Your task to perform on an android device: Add bose soundlink mini to the cart on amazon.com, then select checkout. Image 0: 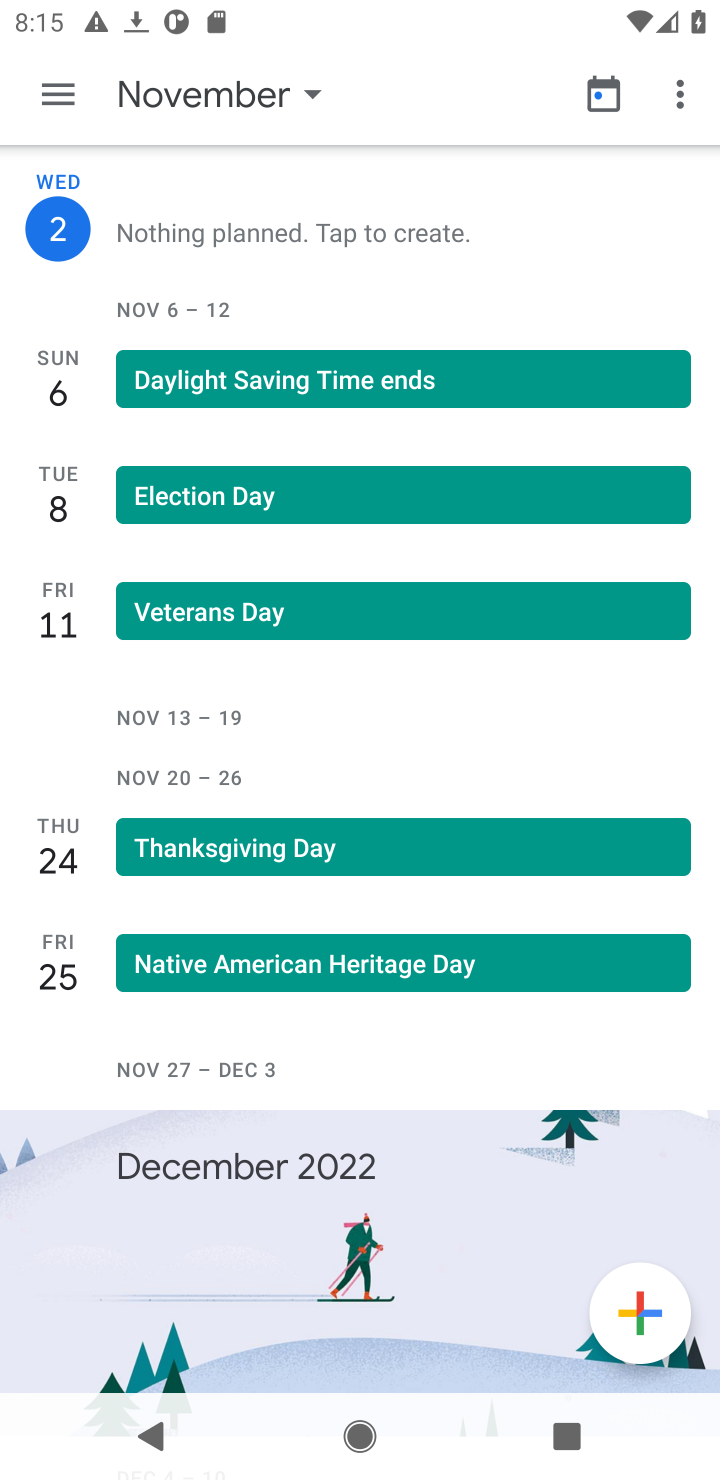
Step 0: press home button
Your task to perform on an android device: Add bose soundlink mini to the cart on amazon.com, then select checkout. Image 1: 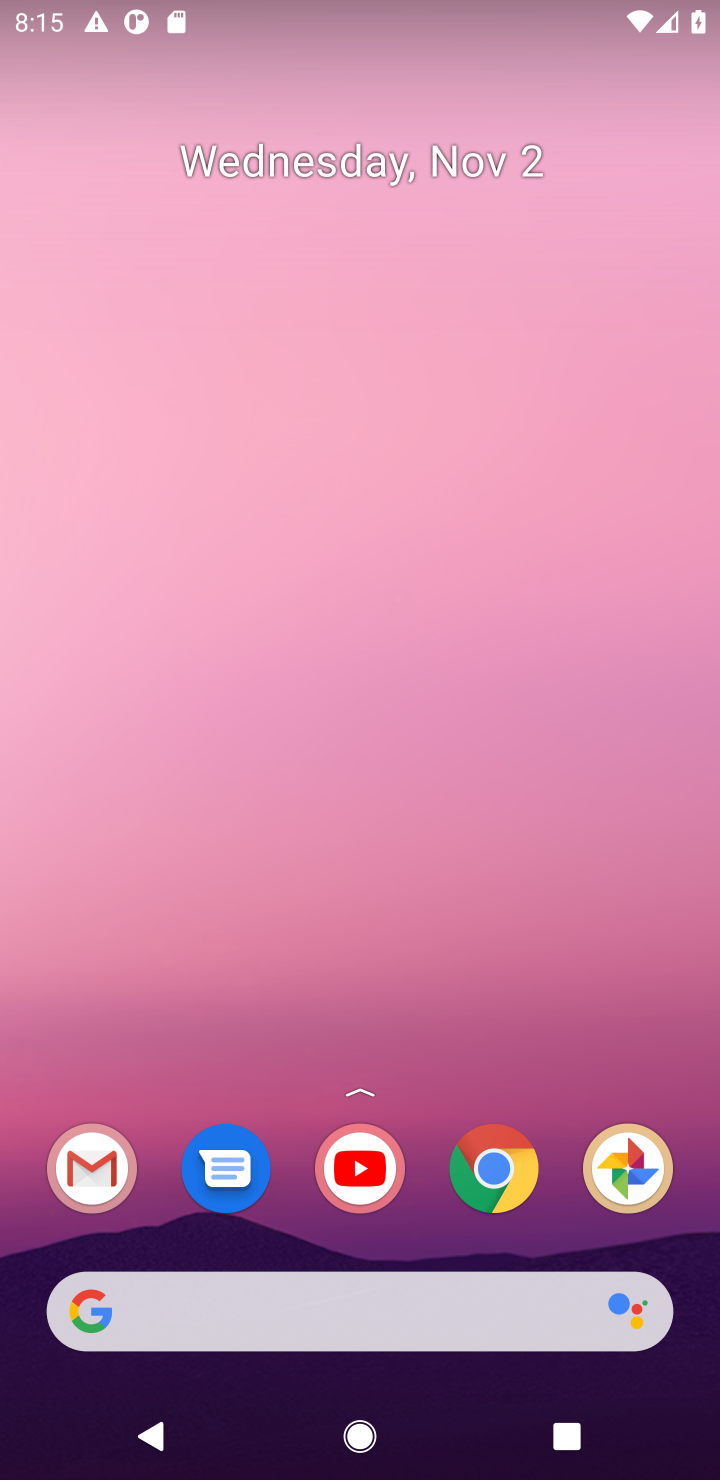
Step 1: click (495, 1175)
Your task to perform on an android device: Add bose soundlink mini to the cart on amazon.com, then select checkout. Image 2: 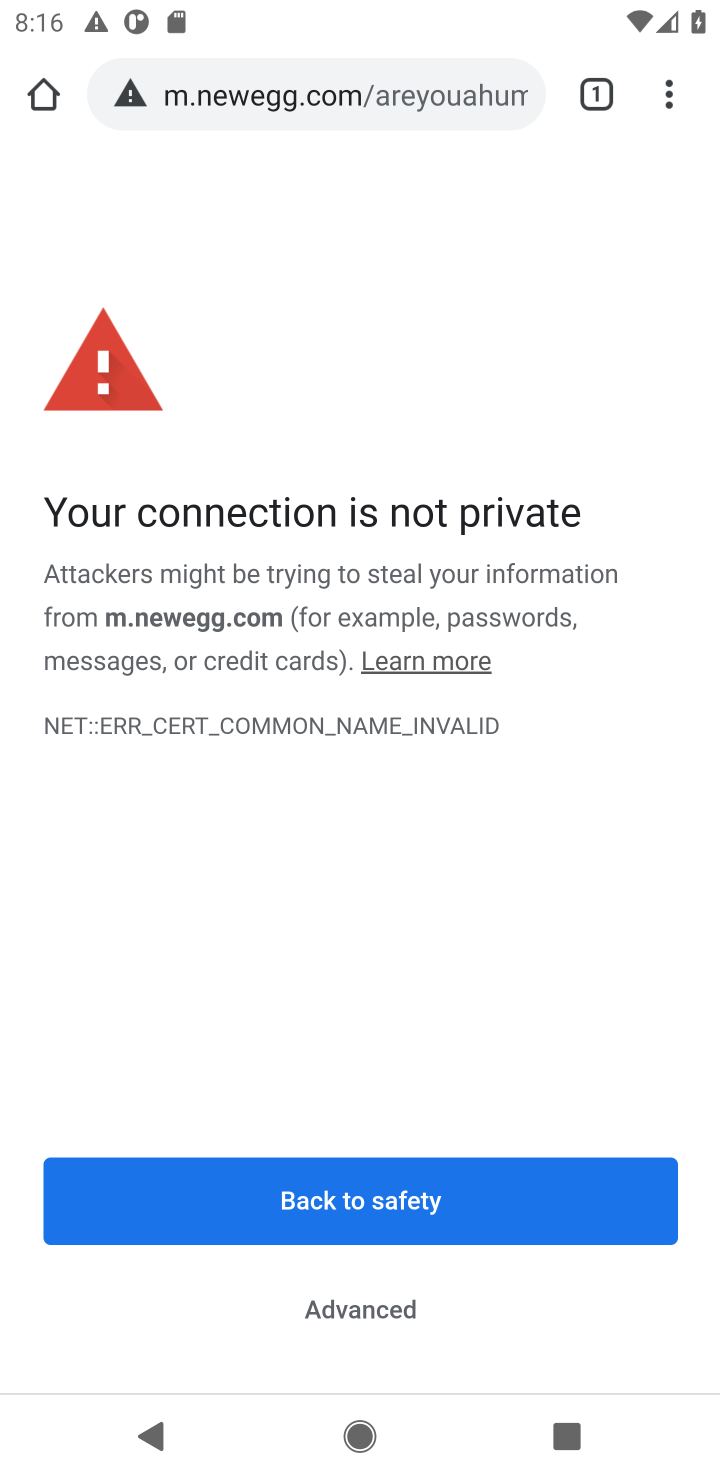
Step 2: click (401, 100)
Your task to perform on an android device: Add bose soundlink mini to the cart on amazon.com, then select checkout. Image 3: 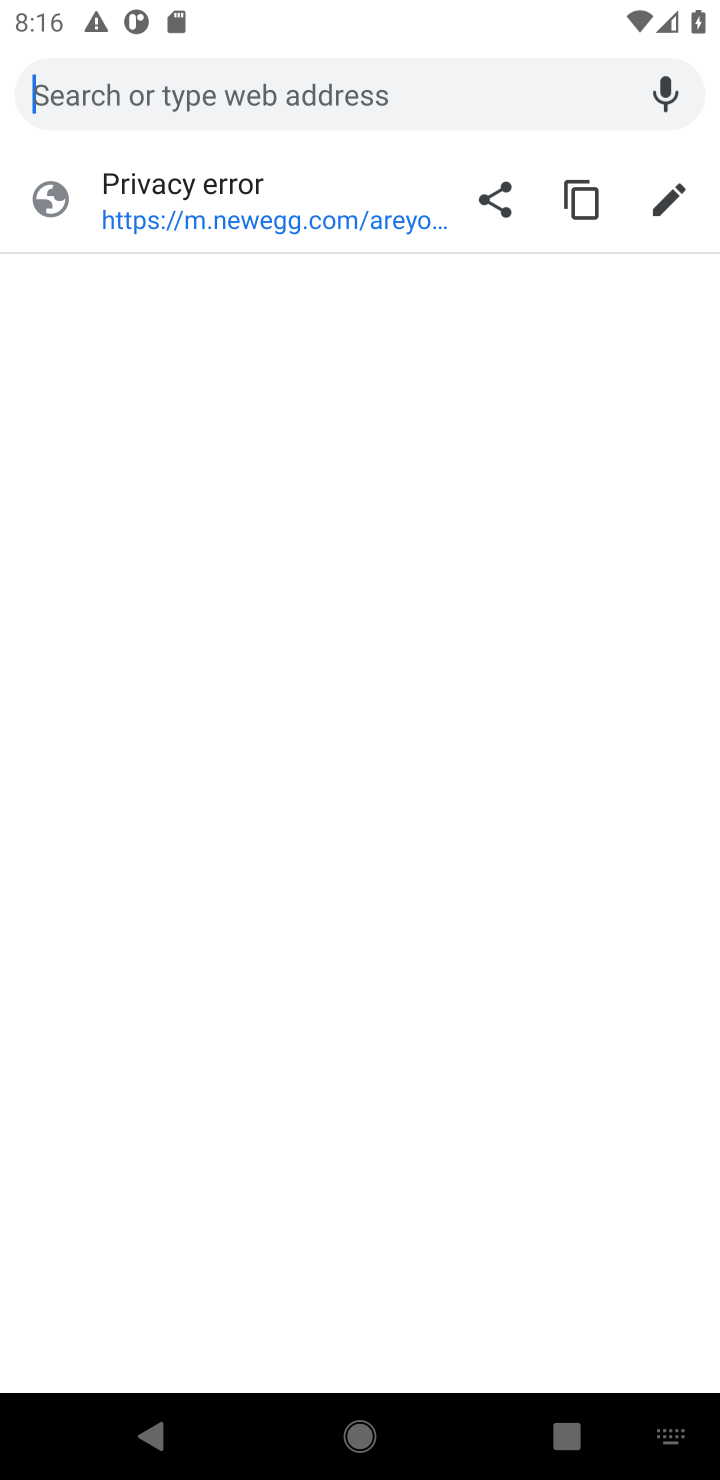
Step 3: type "amazon.com"
Your task to perform on an android device: Add bose soundlink mini to the cart on amazon.com, then select checkout. Image 4: 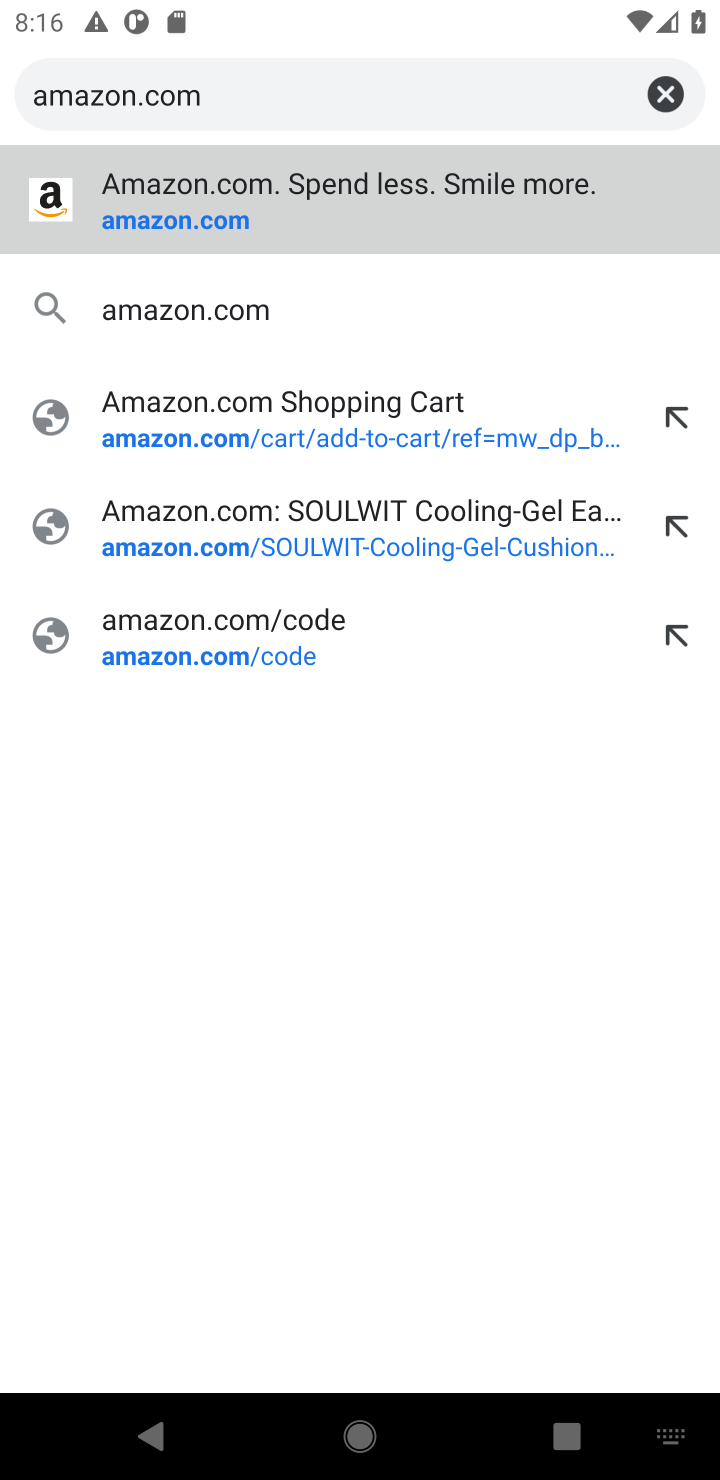
Step 4: click (232, 314)
Your task to perform on an android device: Add bose soundlink mini to the cart on amazon.com, then select checkout. Image 5: 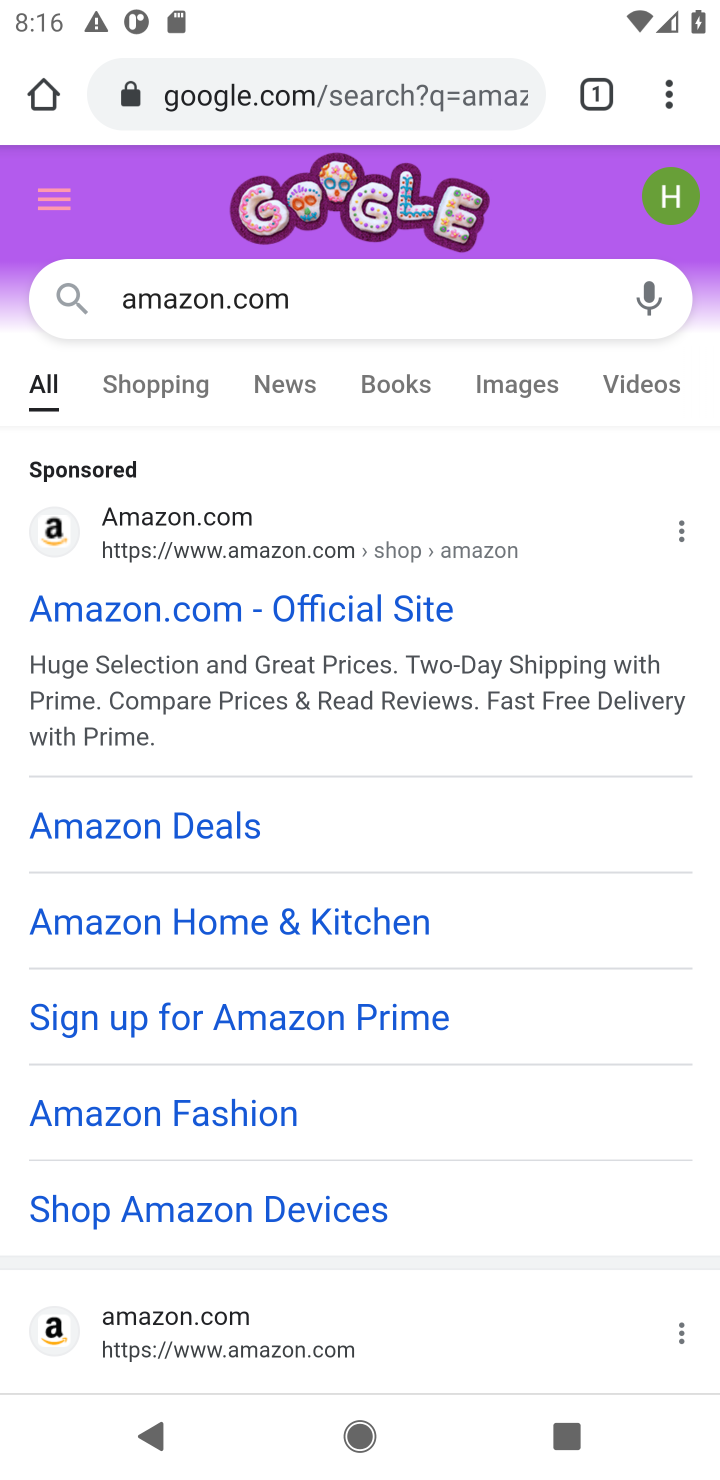
Step 5: click (281, 618)
Your task to perform on an android device: Add bose soundlink mini to the cart on amazon.com, then select checkout. Image 6: 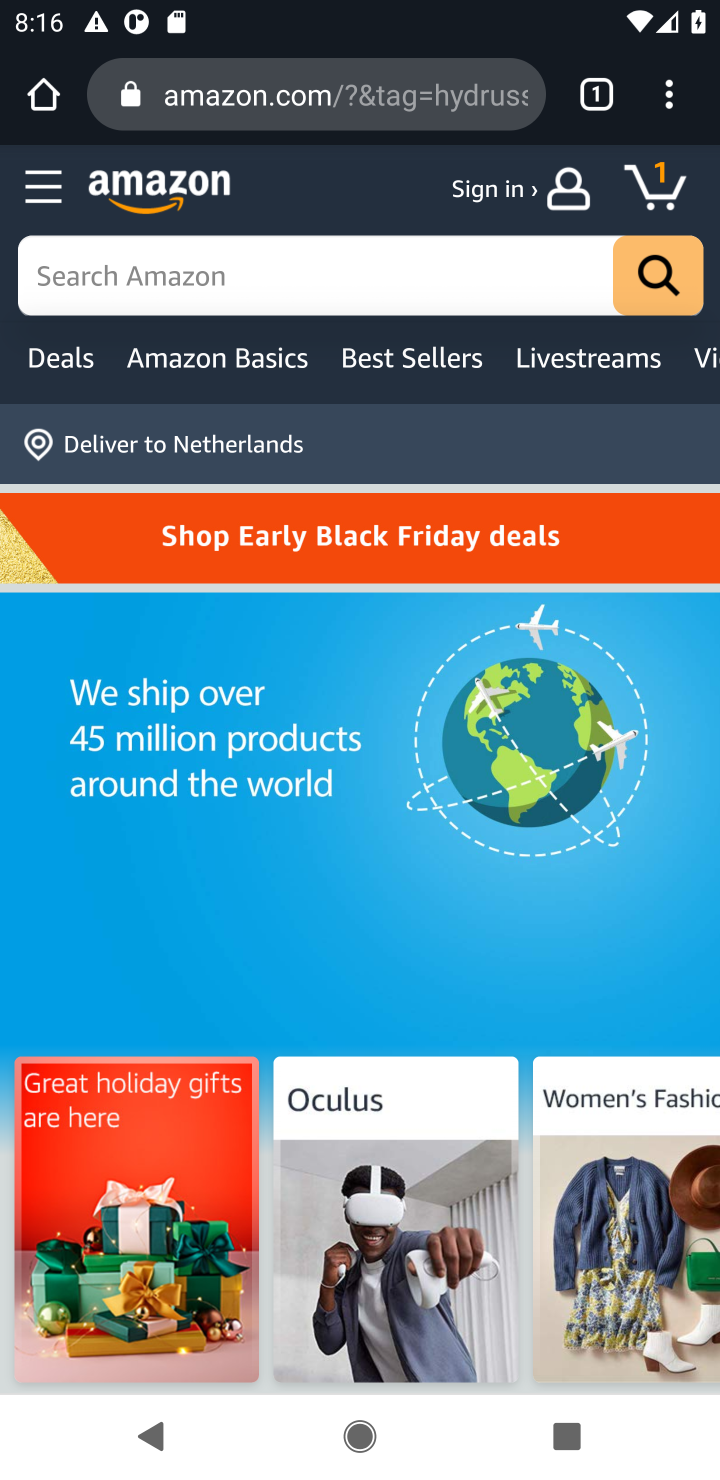
Step 6: click (507, 281)
Your task to perform on an android device: Add bose soundlink mini to the cart on amazon.com, then select checkout. Image 7: 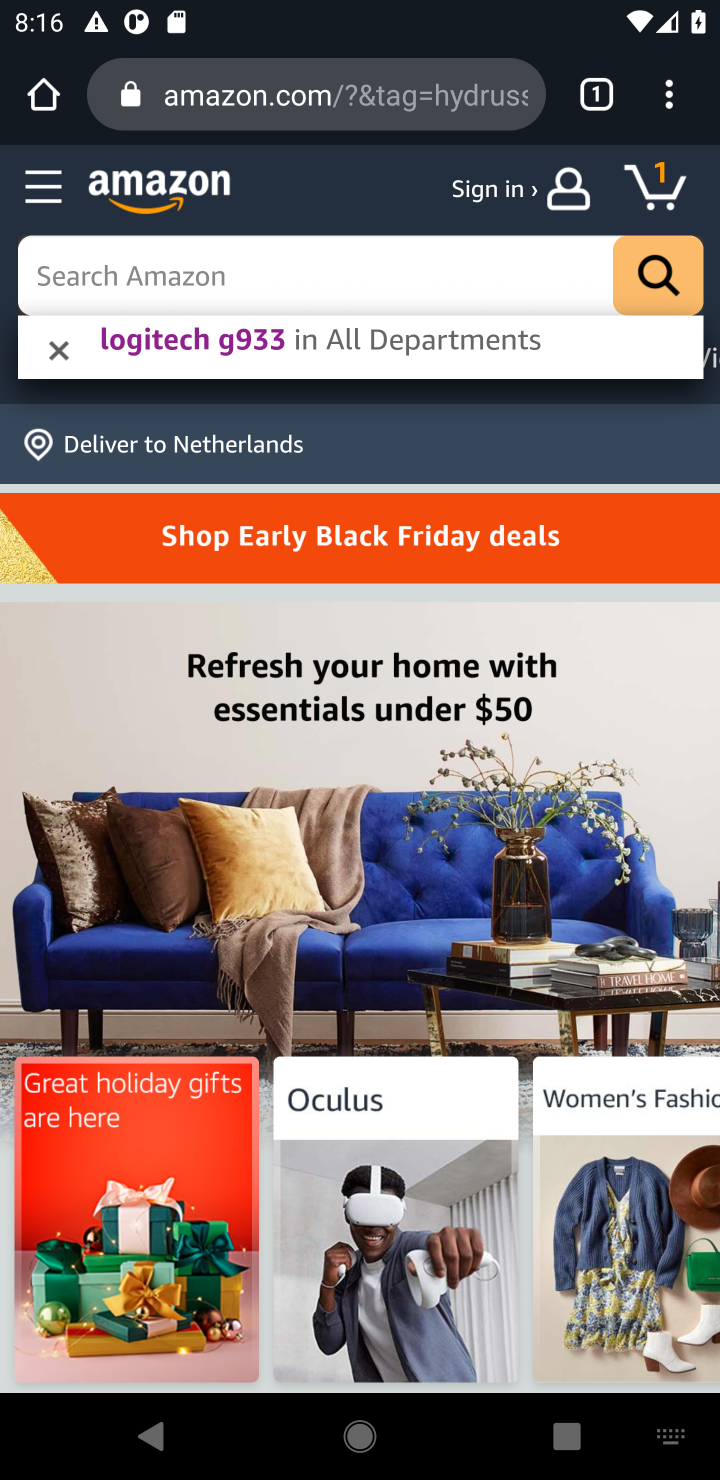
Step 7: type "soundlink mini"
Your task to perform on an android device: Add bose soundlink mini to the cart on amazon.com, then select checkout. Image 8: 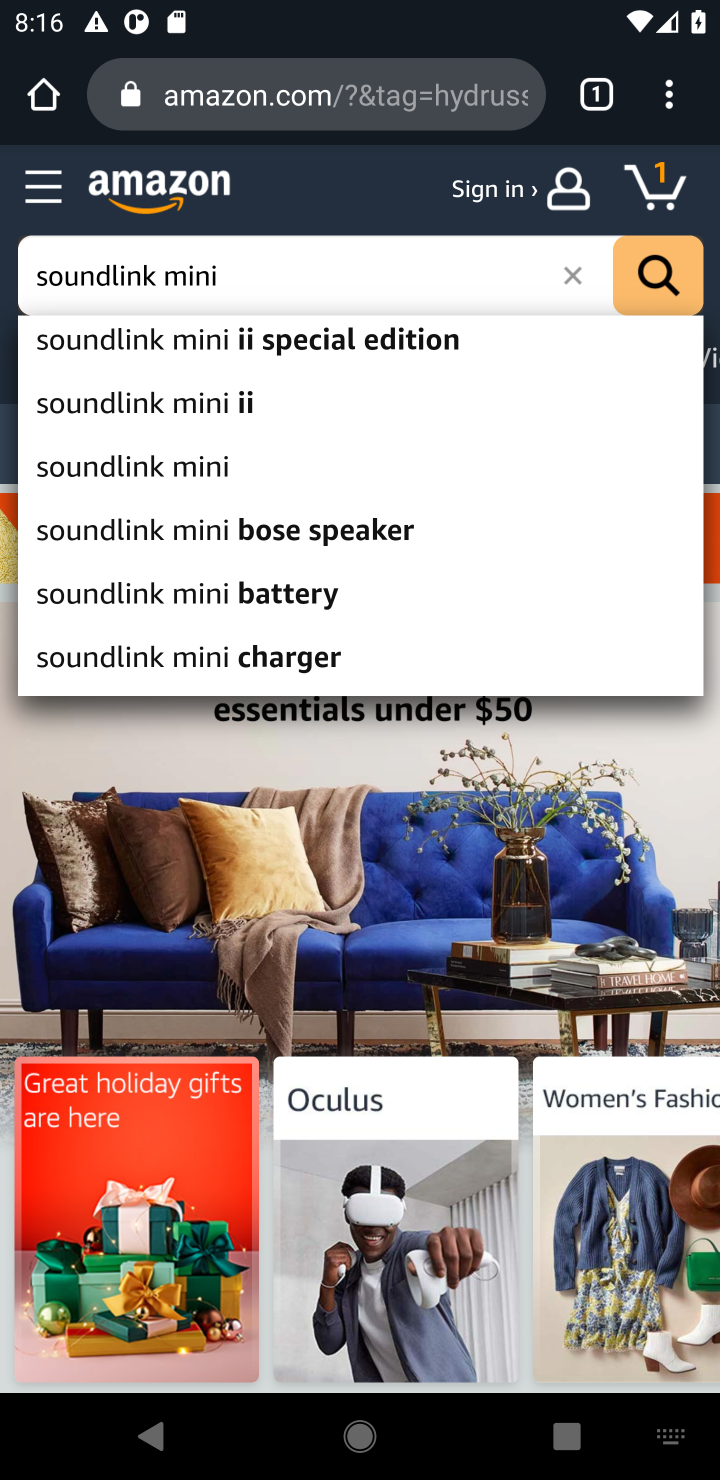
Step 8: click (651, 273)
Your task to perform on an android device: Add bose soundlink mini to the cart on amazon.com, then select checkout. Image 9: 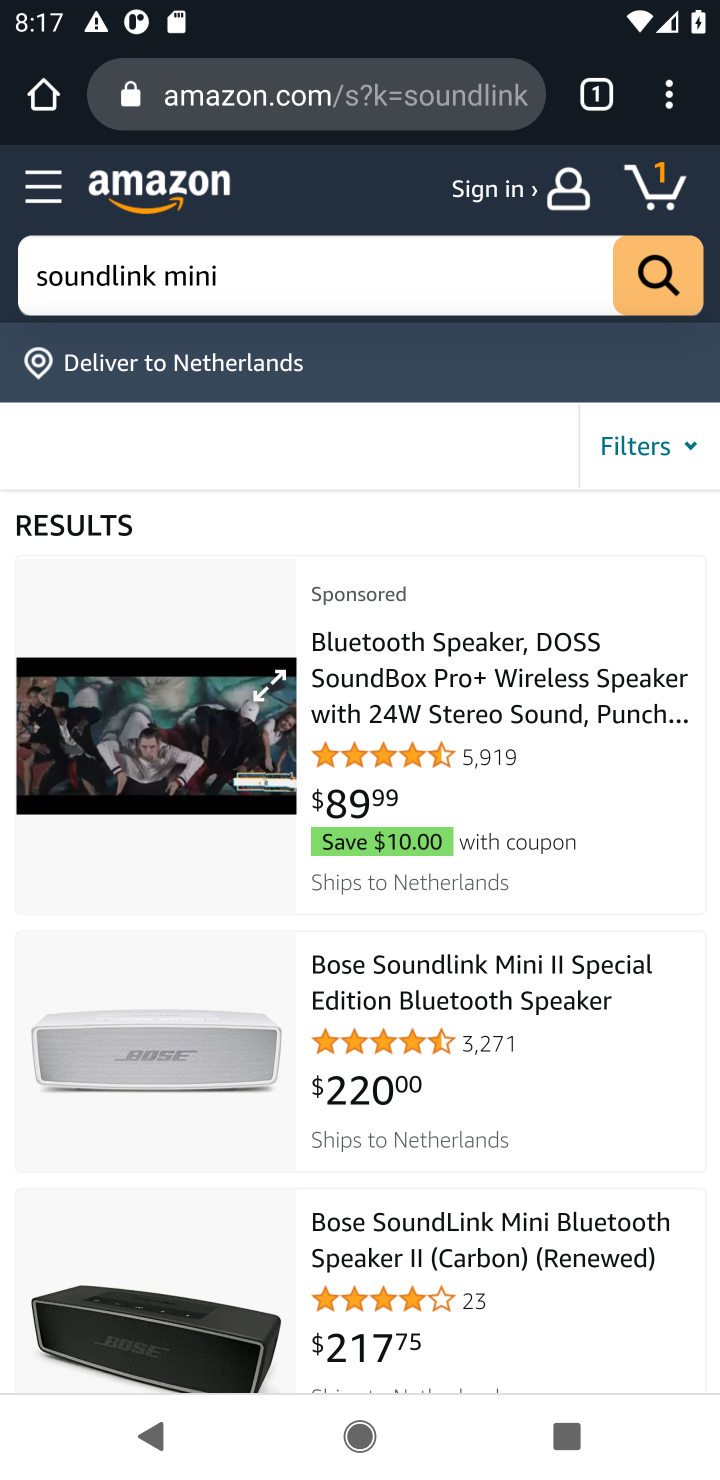
Step 9: click (505, 1214)
Your task to perform on an android device: Add bose soundlink mini to the cart on amazon.com, then select checkout. Image 10: 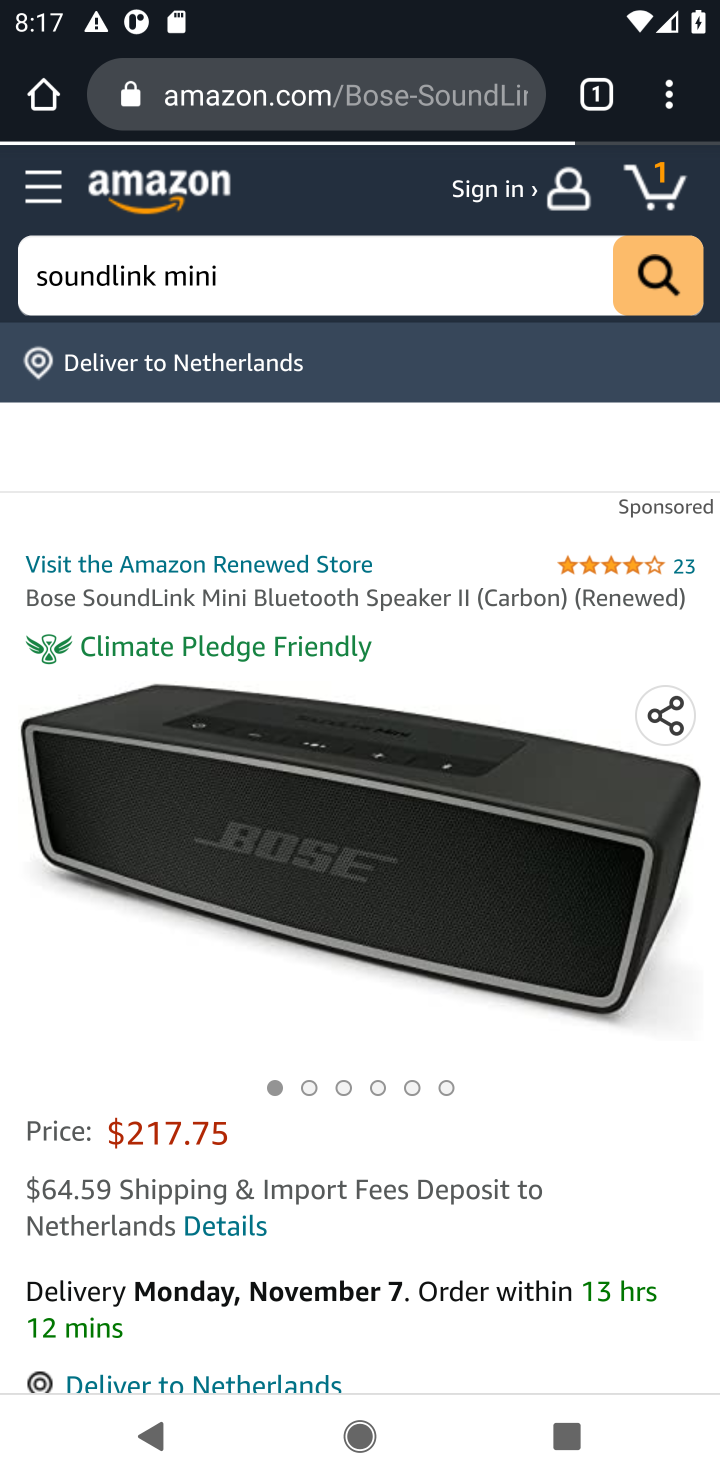
Step 10: drag from (473, 1318) to (450, 673)
Your task to perform on an android device: Add bose soundlink mini to the cart on amazon.com, then select checkout. Image 11: 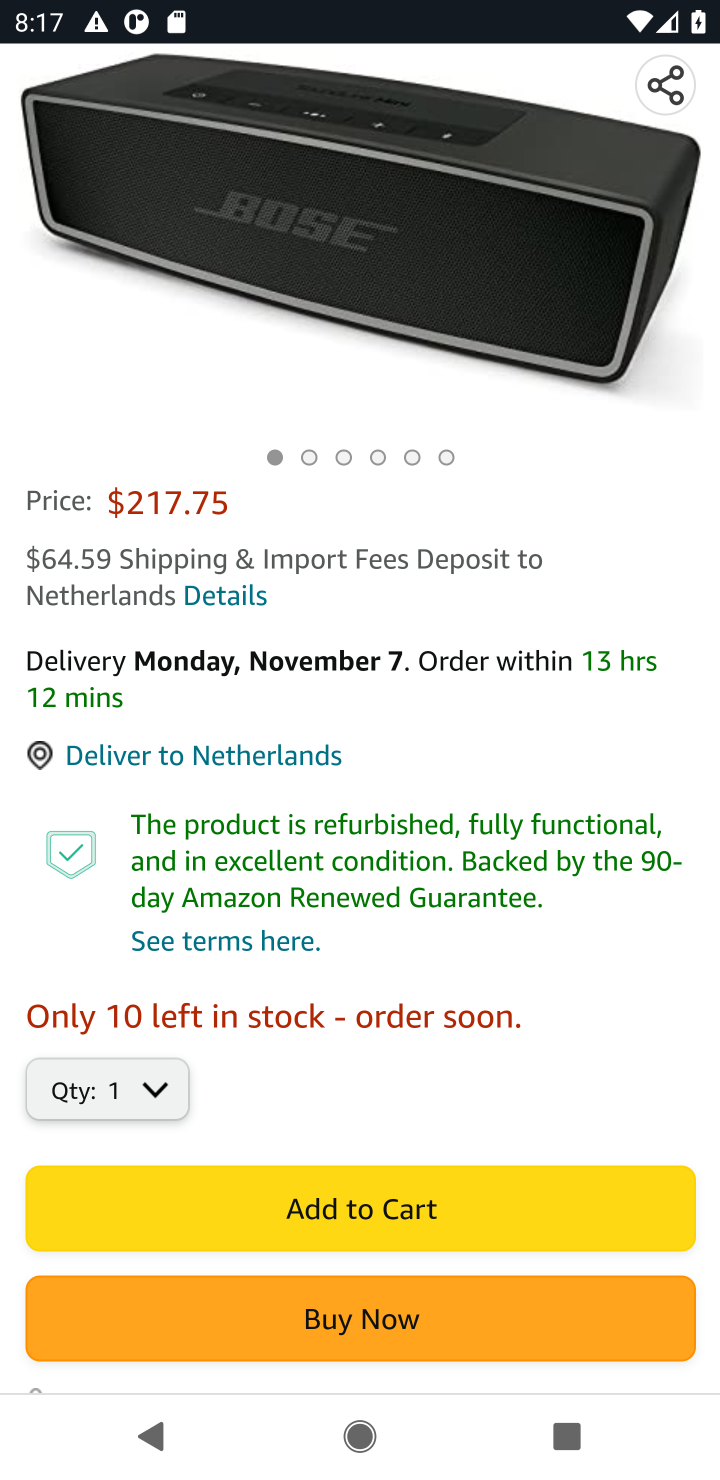
Step 11: click (368, 1199)
Your task to perform on an android device: Add bose soundlink mini to the cart on amazon.com, then select checkout. Image 12: 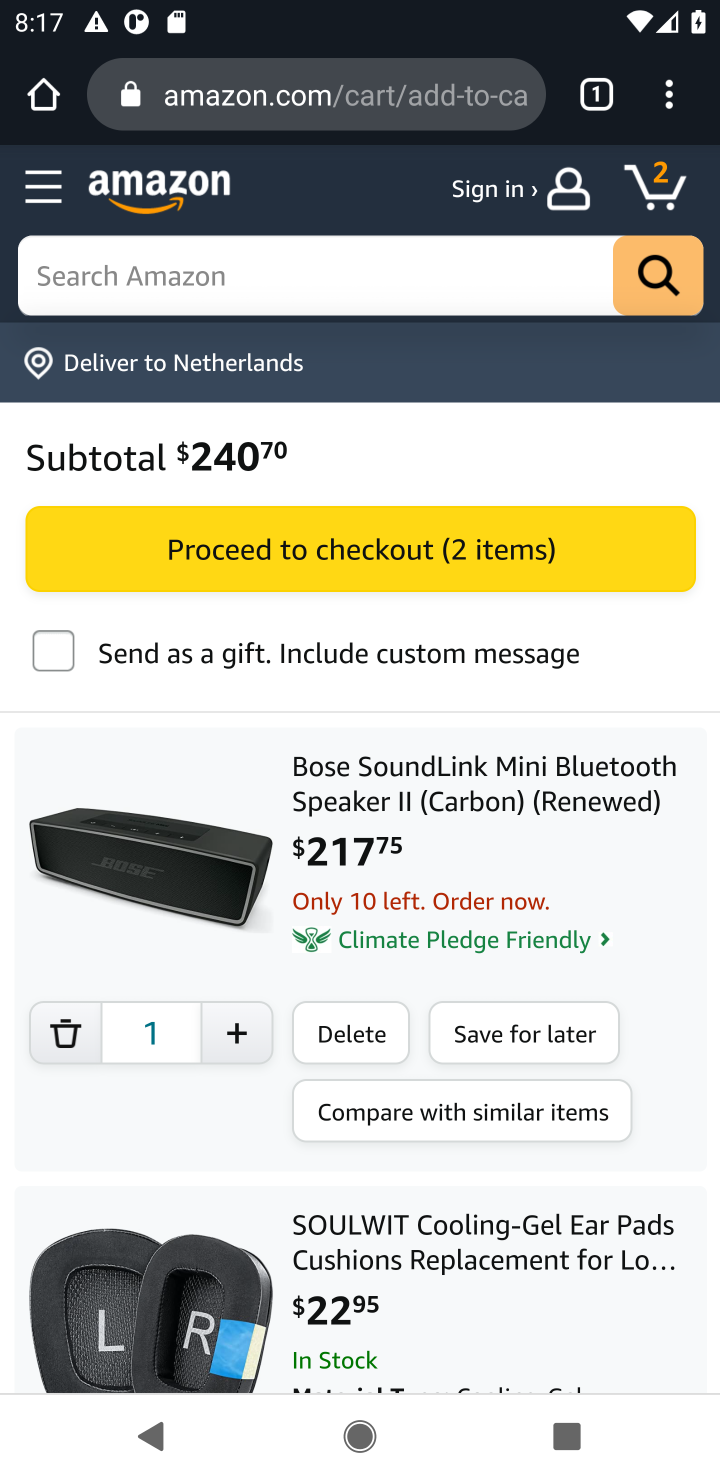
Step 12: click (395, 547)
Your task to perform on an android device: Add bose soundlink mini to the cart on amazon.com, then select checkout. Image 13: 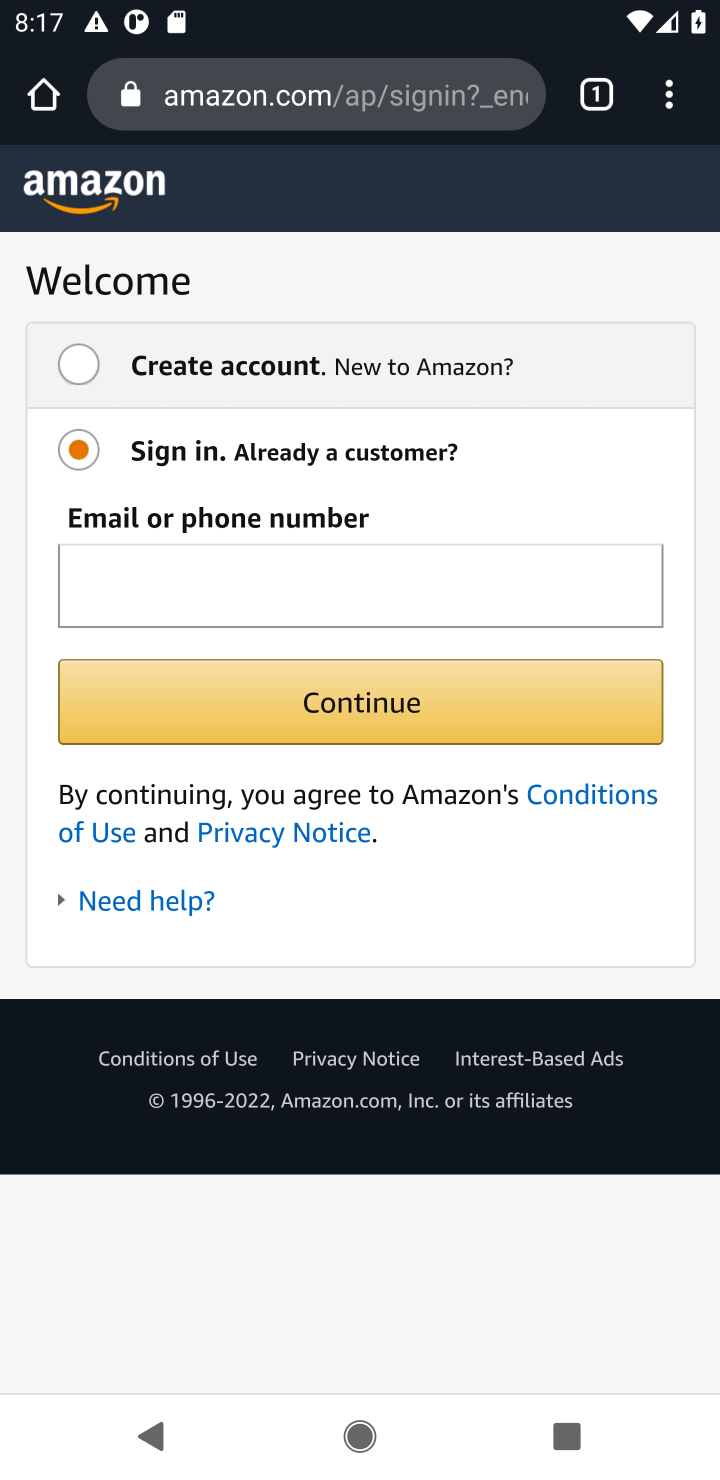
Step 13: task complete